Your task to perform on an android device: What's the weather? Image 0: 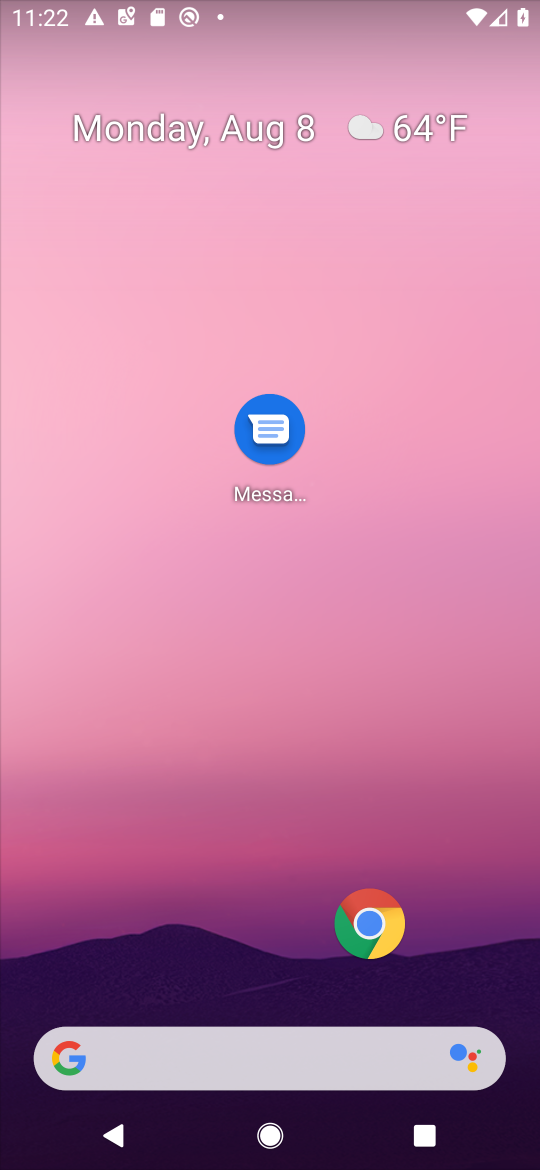
Step 0: click (135, 1063)
Your task to perform on an android device: What's the weather? Image 1: 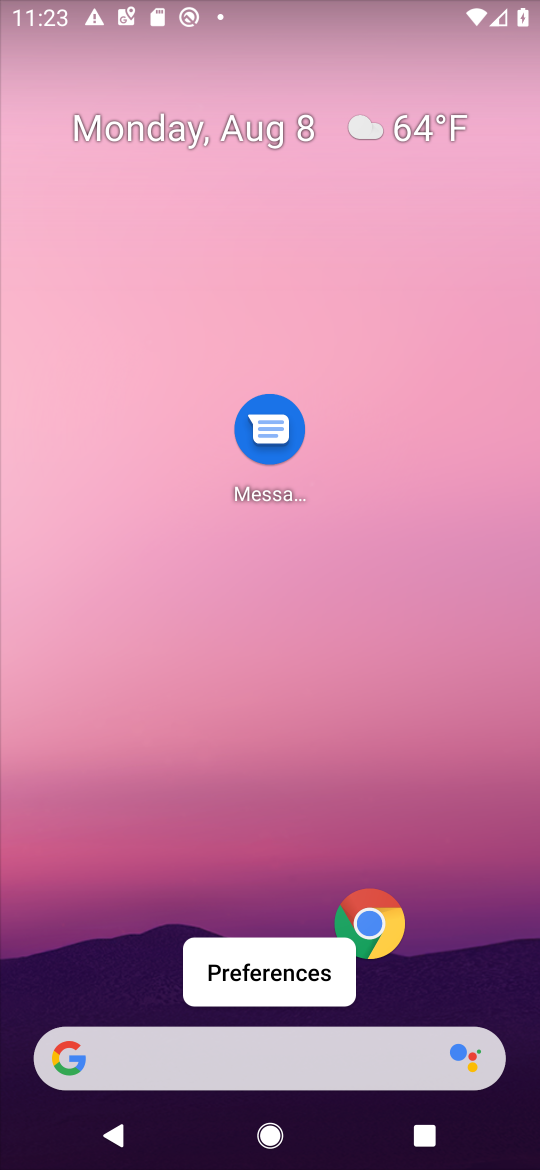
Step 1: click (135, 1063)
Your task to perform on an android device: What's the weather? Image 2: 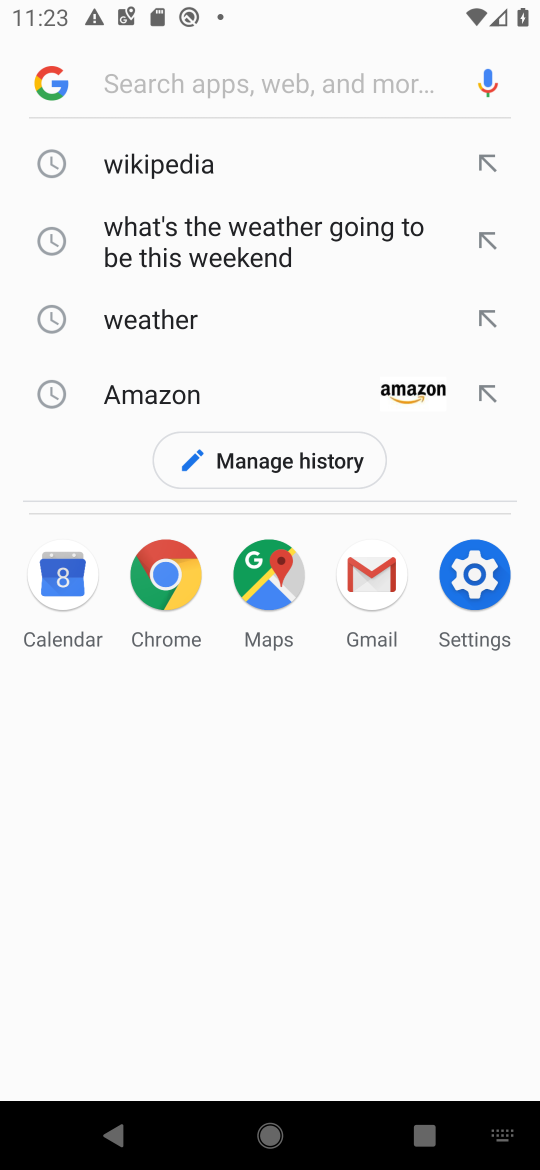
Step 2: type "What's the weather?"
Your task to perform on an android device: What's the weather? Image 3: 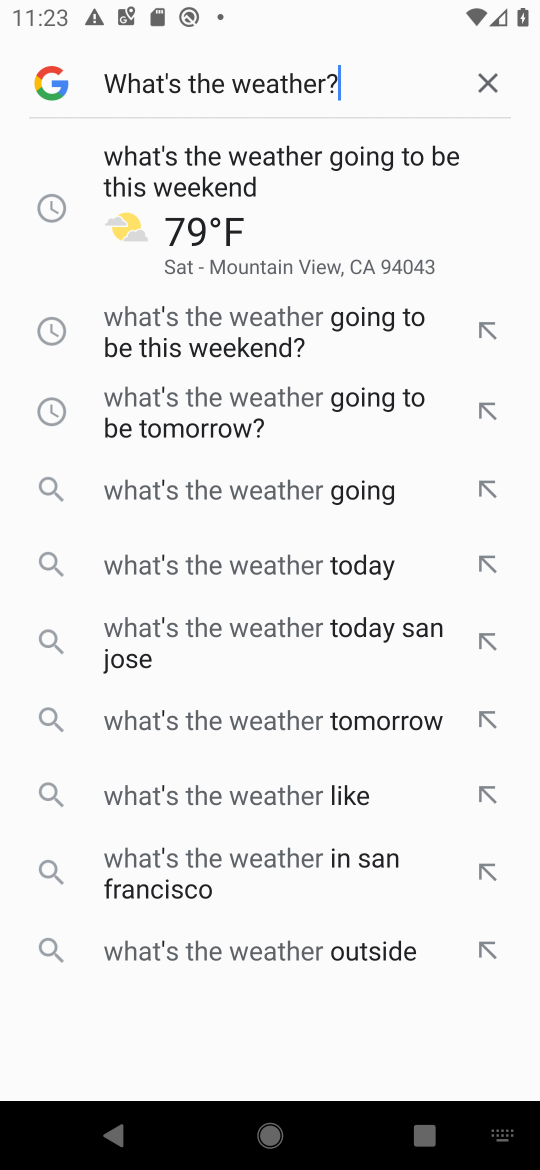
Step 3: type ""
Your task to perform on an android device: What's the weather? Image 4: 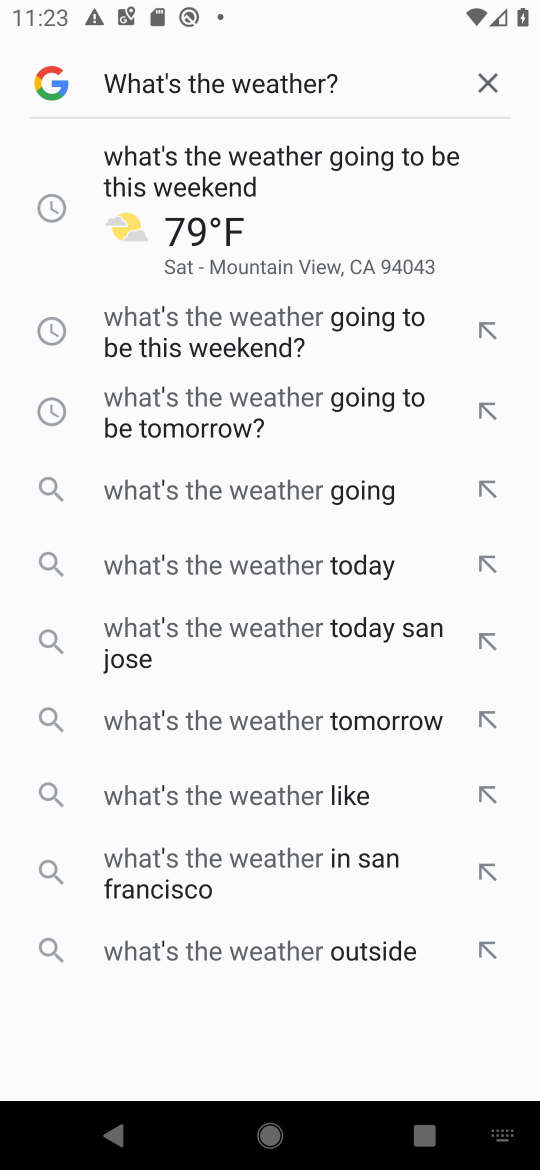
Step 4: task complete